Your task to perform on an android device: Open Android settings Image 0: 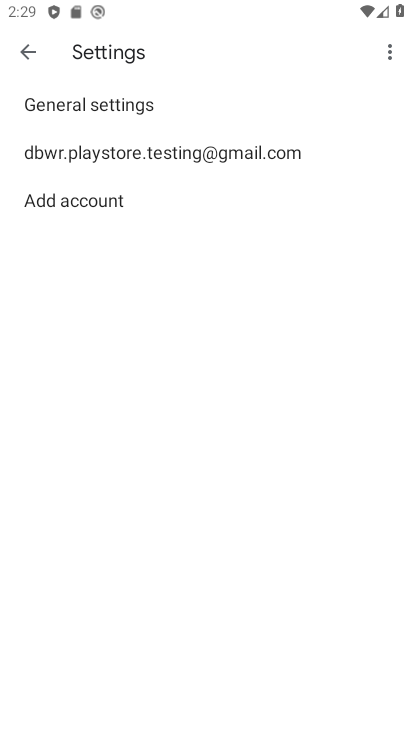
Step 0: press home button
Your task to perform on an android device: Open Android settings Image 1: 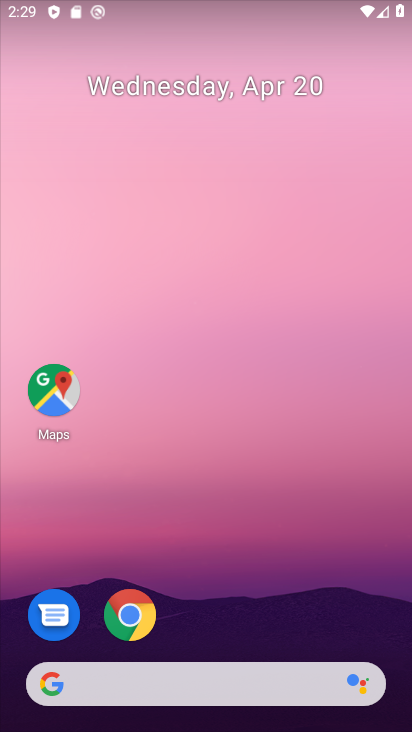
Step 1: drag from (217, 630) to (407, 110)
Your task to perform on an android device: Open Android settings Image 2: 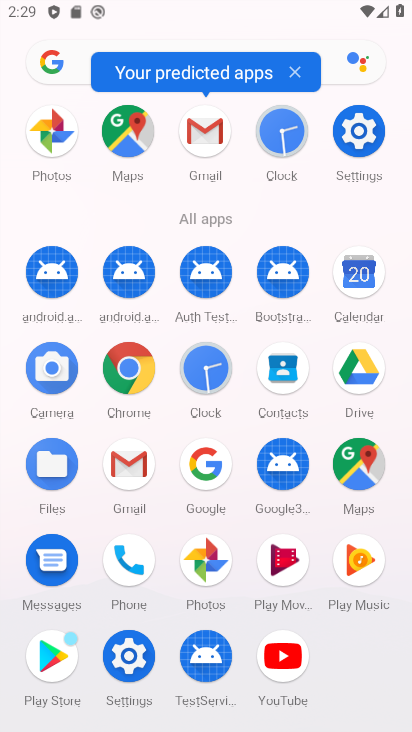
Step 2: click (371, 118)
Your task to perform on an android device: Open Android settings Image 3: 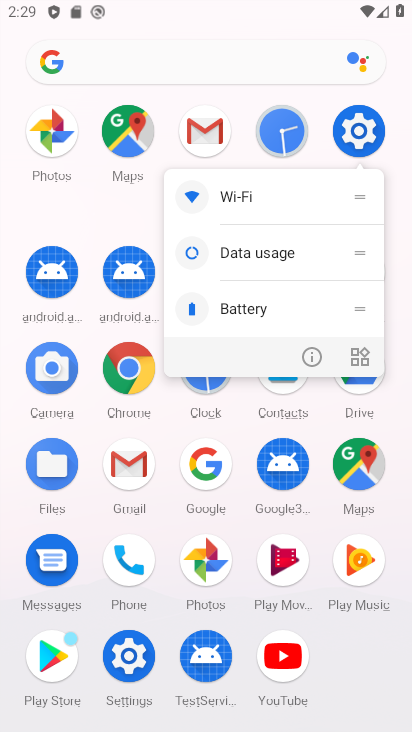
Step 3: click (315, 348)
Your task to perform on an android device: Open Android settings Image 4: 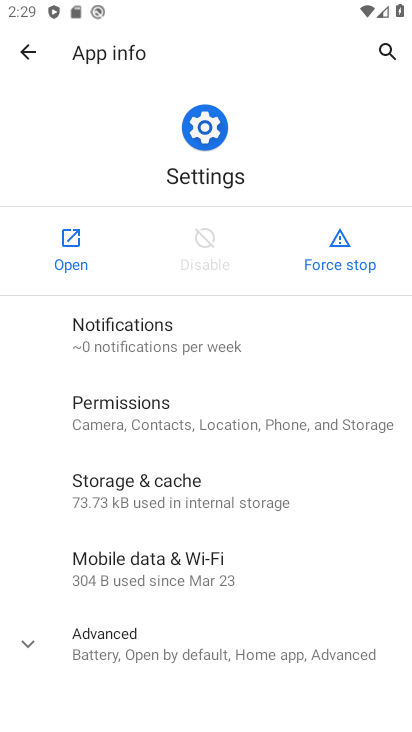
Step 4: click (72, 246)
Your task to perform on an android device: Open Android settings Image 5: 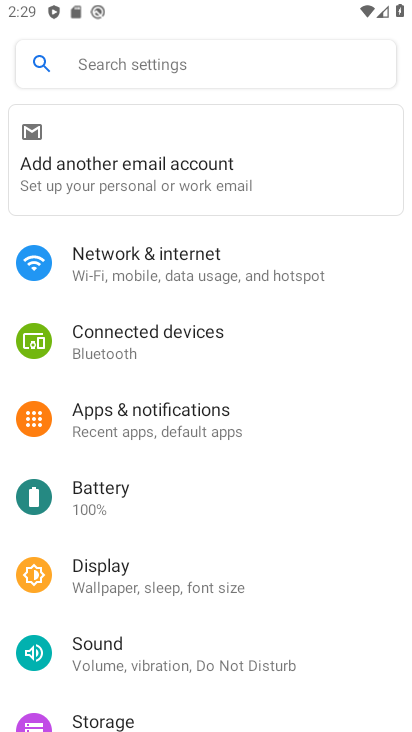
Step 5: drag from (230, 612) to (357, 24)
Your task to perform on an android device: Open Android settings Image 6: 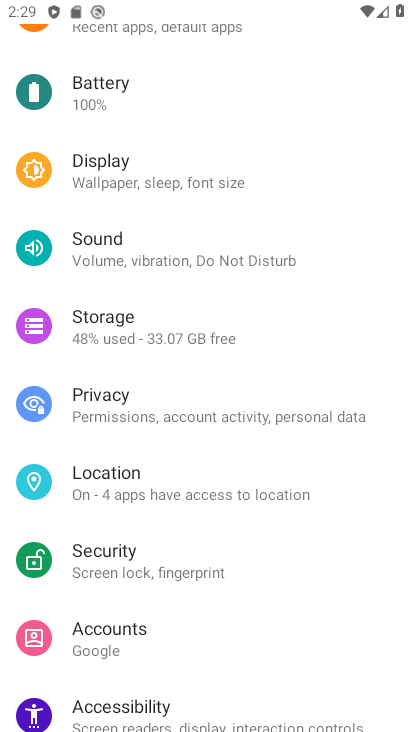
Step 6: drag from (202, 633) to (303, 5)
Your task to perform on an android device: Open Android settings Image 7: 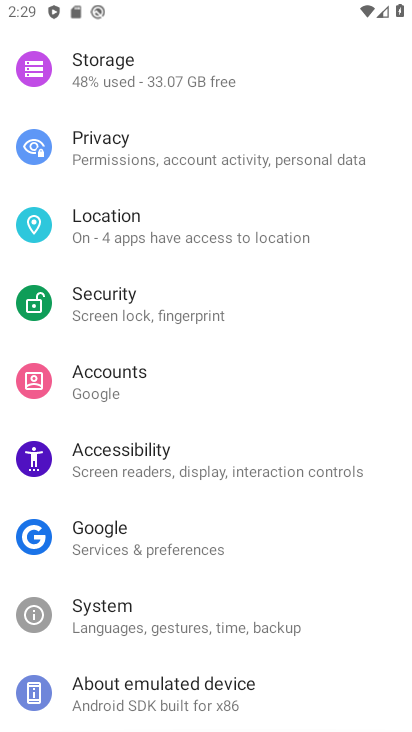
Step 7: click (171, 687)
Your task to perform on an android device: Open Android settings Image 8: 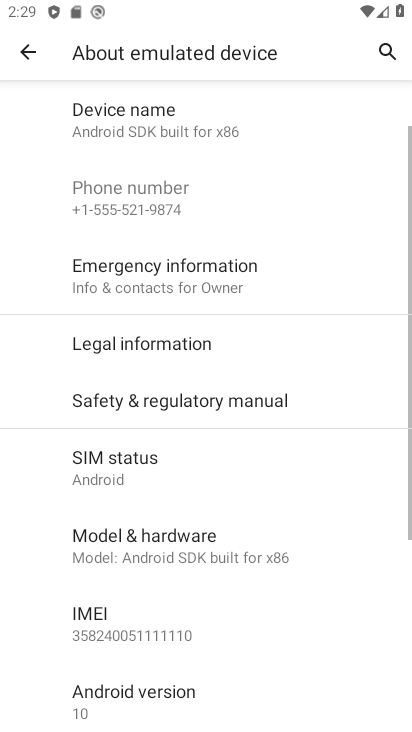
Step 8: drag from (220, 599) to (273, 239)
Your task to perform on an android device: Open Android settings Image 9: 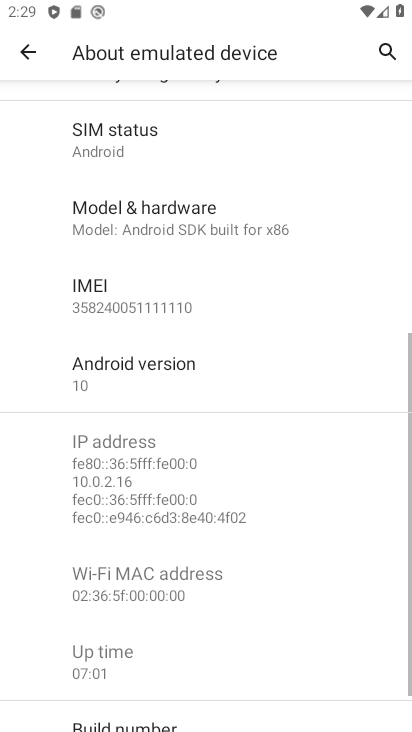
Step 9: click (156, 379)
Your task to perform on an android device: Open Android settings Image 10: 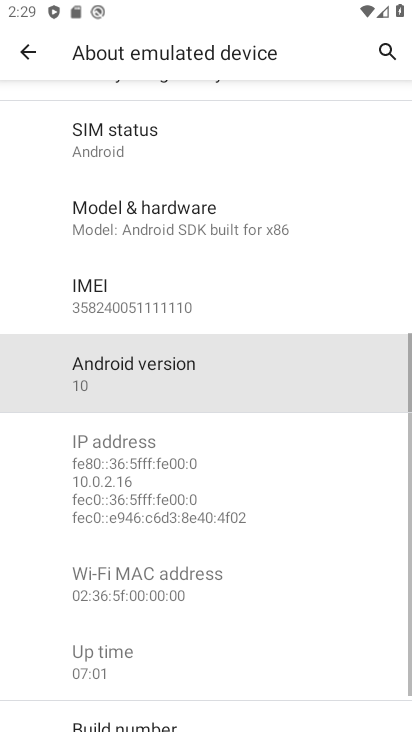
Step 10: task complete